Your task to perform on an android device: turn notification dots off Image 0: 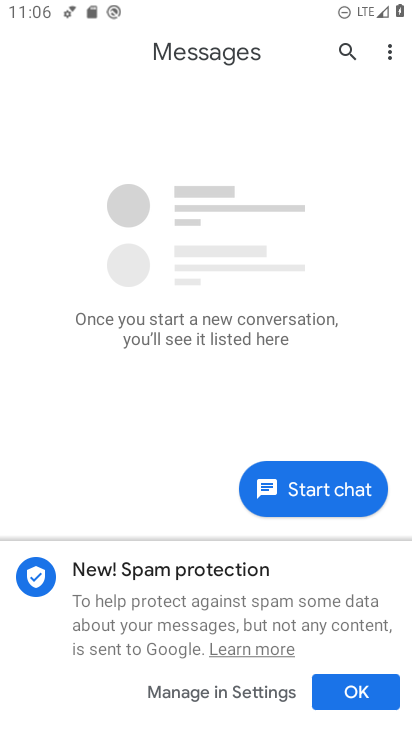
Step 0: press home button
Your task to perform on an android device: turn notification dots off Image 1: 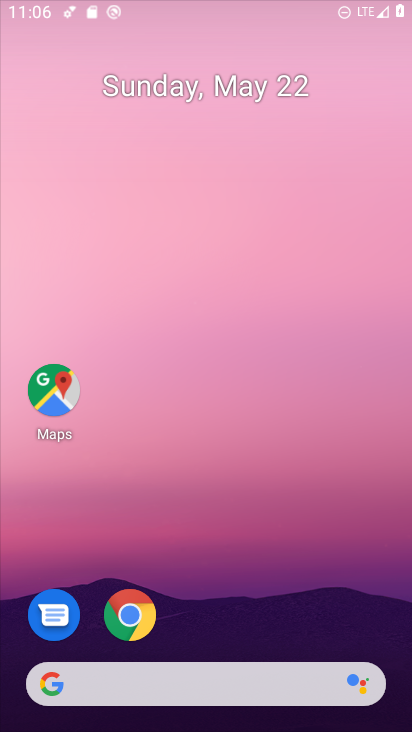
Step 1: drag from (306, 572) to (285, 136)
Your task to perform on an android device: turn notification dots off Image 2: 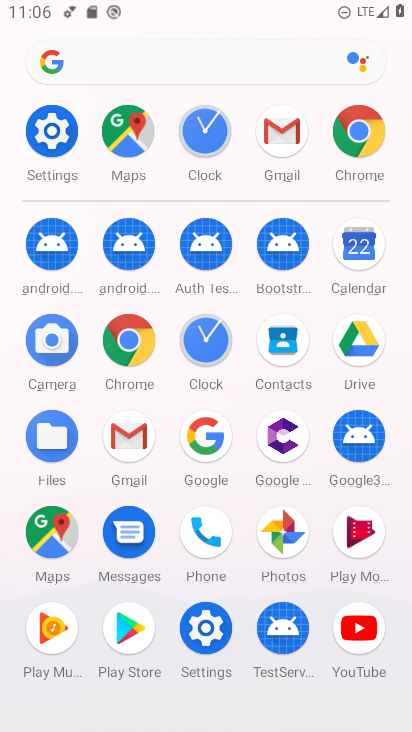
Step 2: click (49, 122)
Your task to perform on an android device: turn notification dots off Image 3: 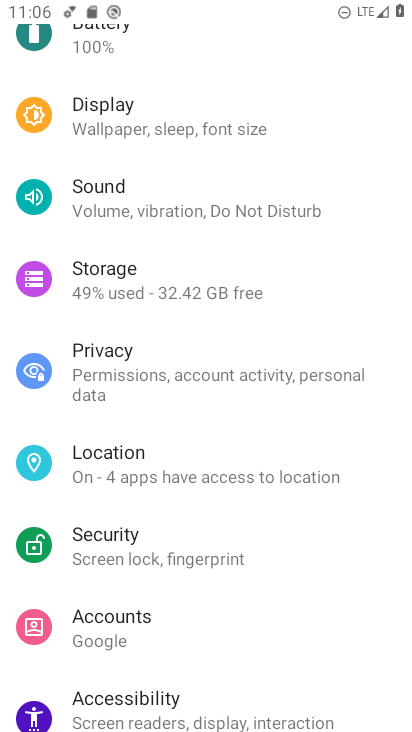
Step 3: drag from (278, 149) to (328, 579)
Your task to perform on an android device: turn notification dots off Image 4: 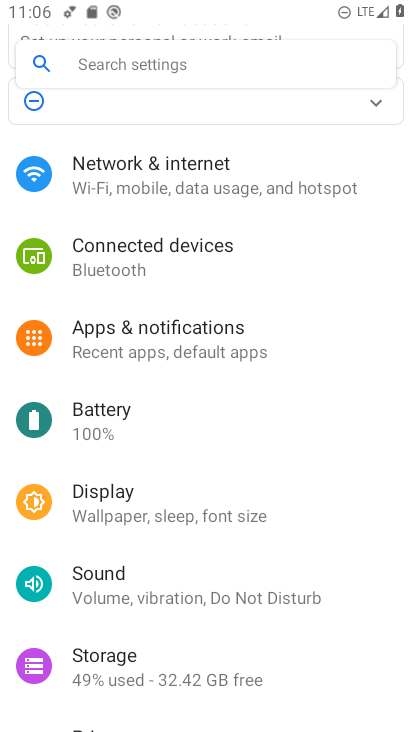
Step 4: click (181, 336)
Your task to perform on an android device: turn notification dots off Image 5: 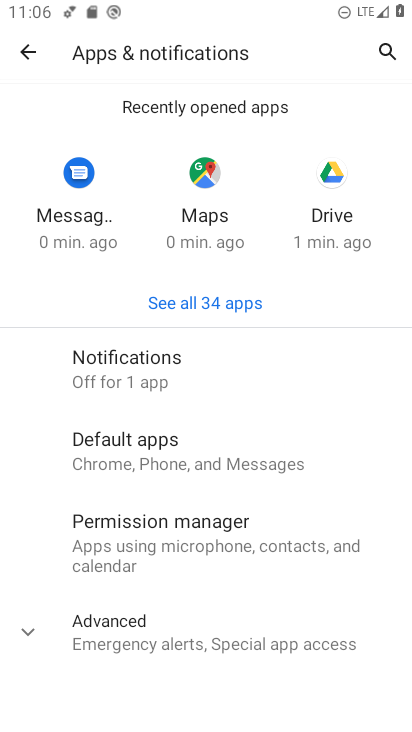
Step 5: click (183, 386)
Your task to perform on an android device: turn notification dots off Image 6: 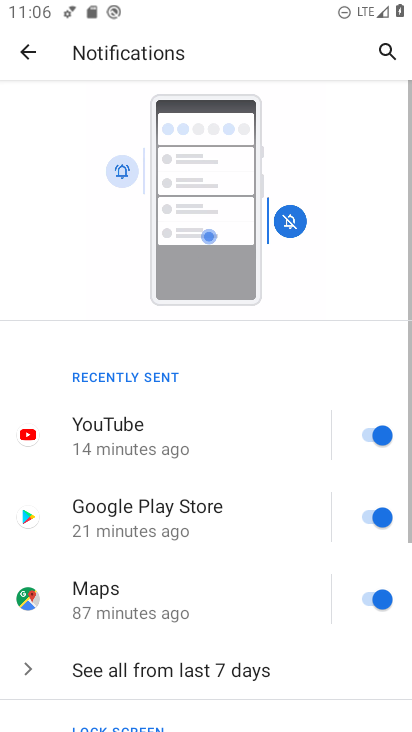
Step 6: drag from (196, 586) to (284, 107)
Your task to perform on an android device: turn notification dots off Image 7: 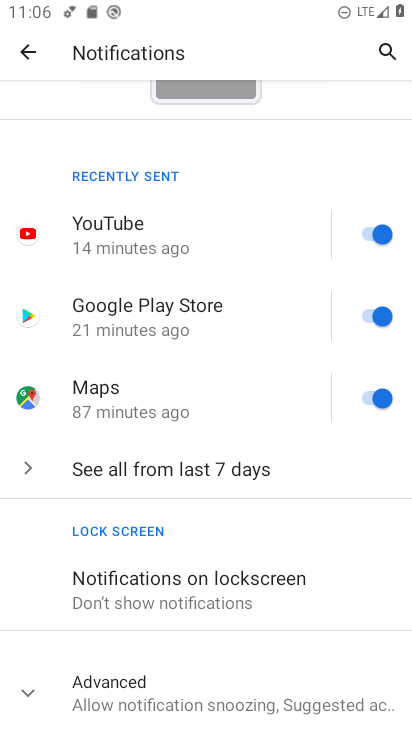
Step 7: click (166, 675)
Your task to perform on an android device: turn notification dots off Image 8: 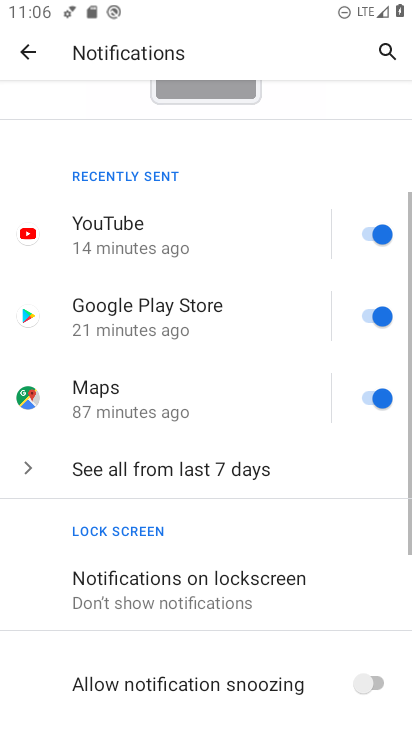
Step 8: task complete